Your task to perform on an android device: install app "Cash App" Image 0: 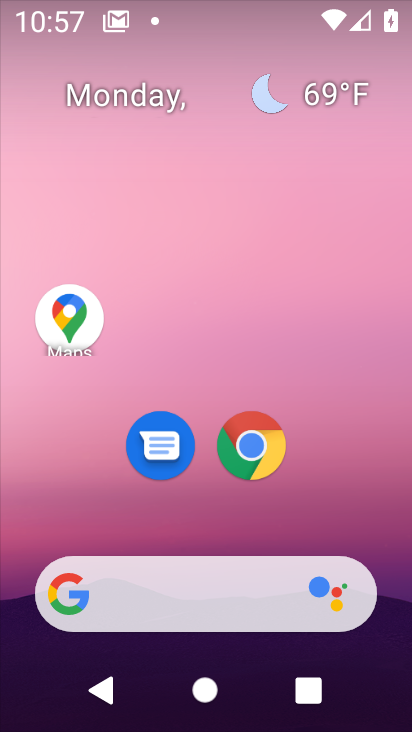
Step 0: drag from (251, 637) to (264, 378)
Your task to perform on an android device: install app "Cash App" Image 1: 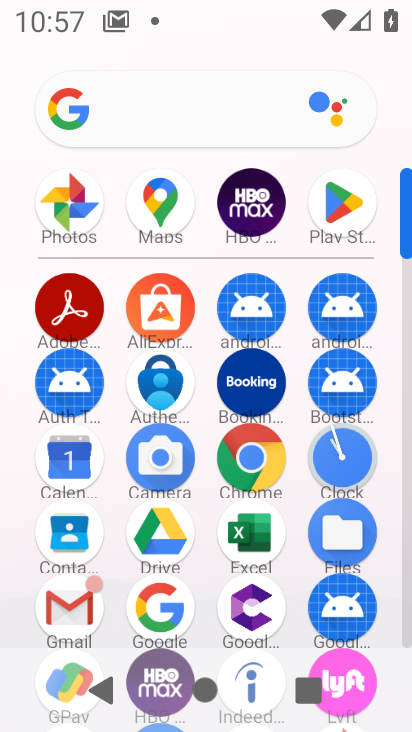
Step 1: click (336, 210)
Your task to perform on an android device: install app "Cash App" Image 2: 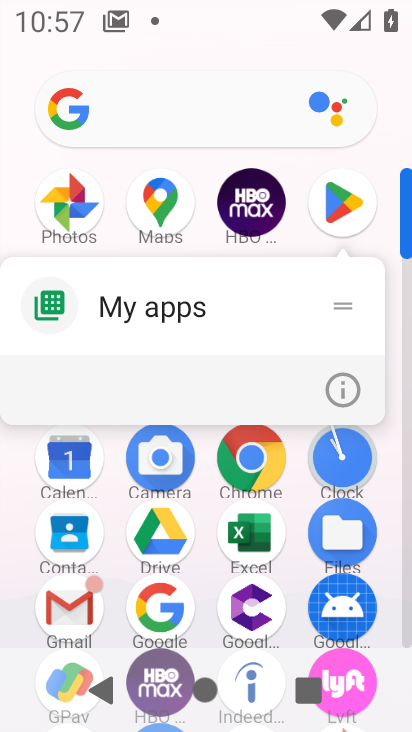
Step 2: click (337, 207)
Your task to perform on an android device: install app "Cash App" Image 3: 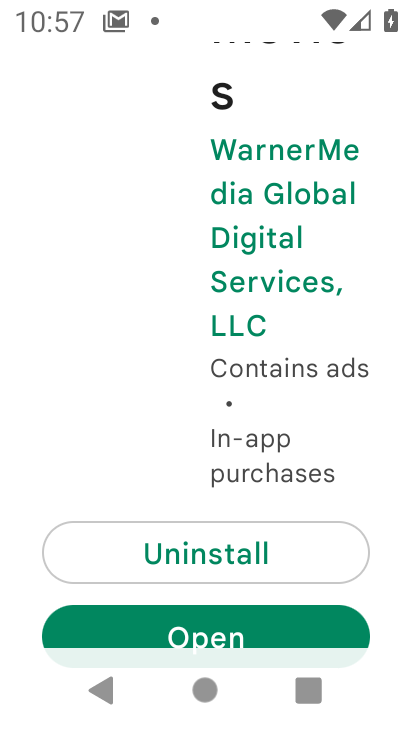
Step 3: drag from (245, 372) to (255, 616)
Your task to perform on an android device: install app "Cash App" Image 4: 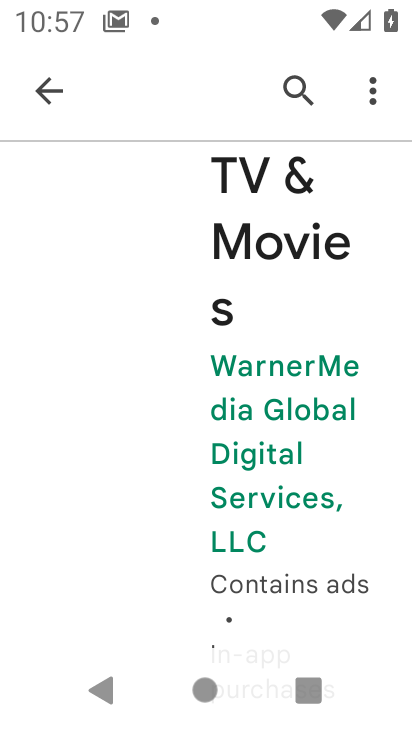
Step 4: press back button
Your task to perform on an android device: install app "Cash App" Image 5: 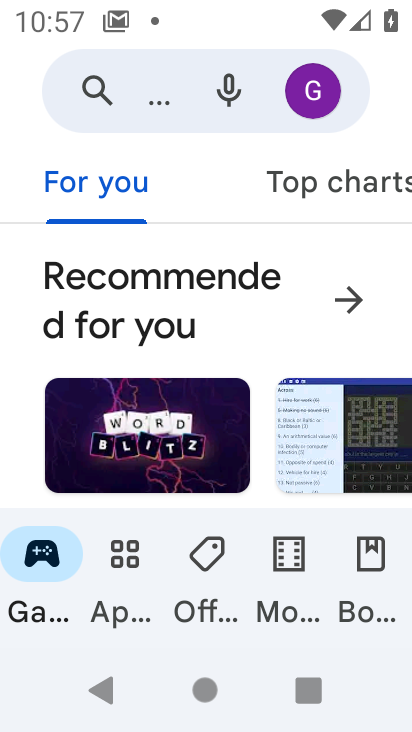
Step 5: click (95, 101)
Your task to perform on an android device: install app "Cash App" Image 6: 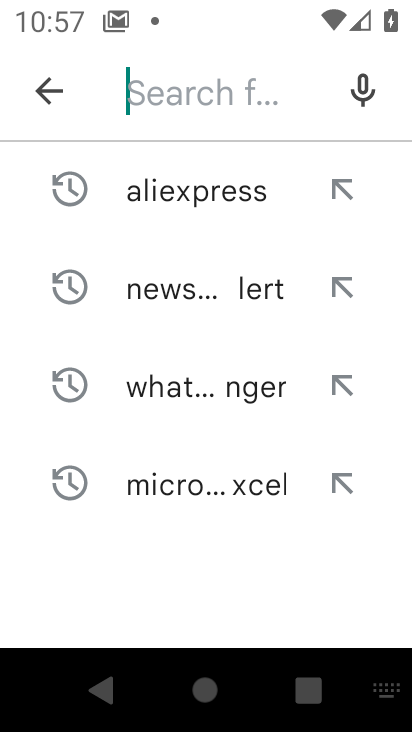
Step 6: type "Cash App"
Your task to perform on an android device: install app "Cash App" Image 7: 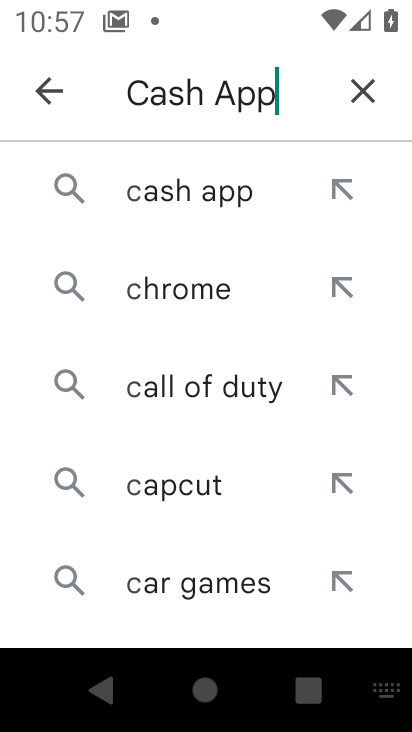
Step 7: type ""
Your task to perform on an android device: install app "Cash App" Image 8: 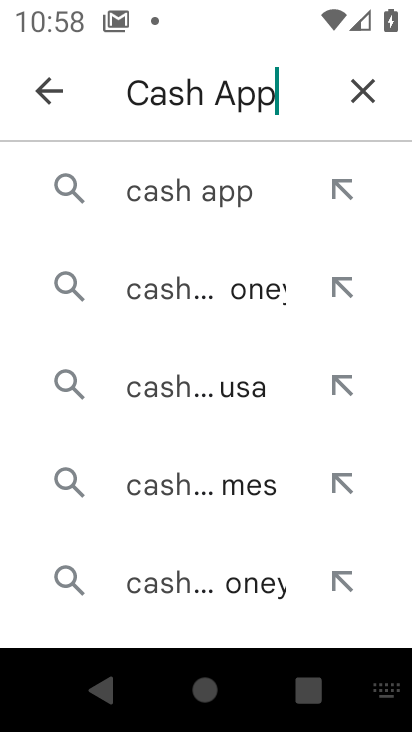
Step 8: click (222, 197)
Your task to perform on an android device: install app "Cash App" Image 9: 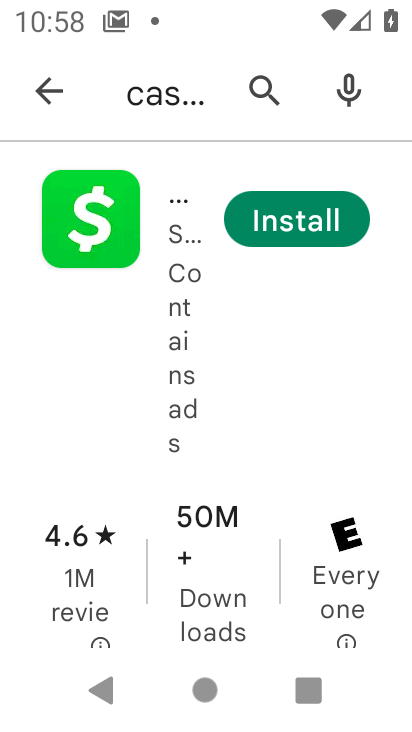
Step 9: click (304, 221)
Your task to perform on an android device: install app "Cash App" Image 10: 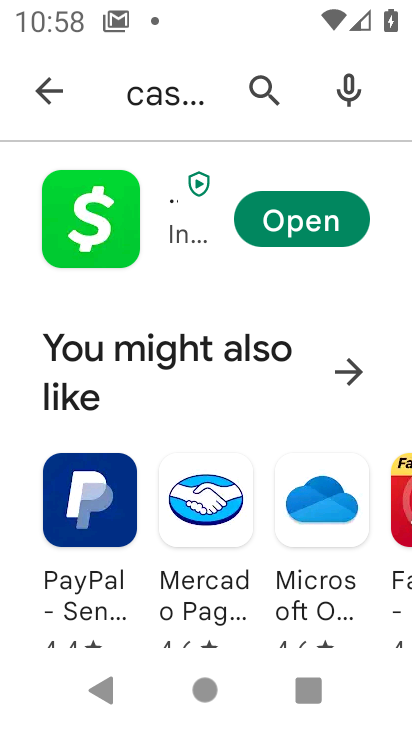
Step 10: task complete